Your task to perform on an android device: move an email to a new category in the gmail app Image 0: 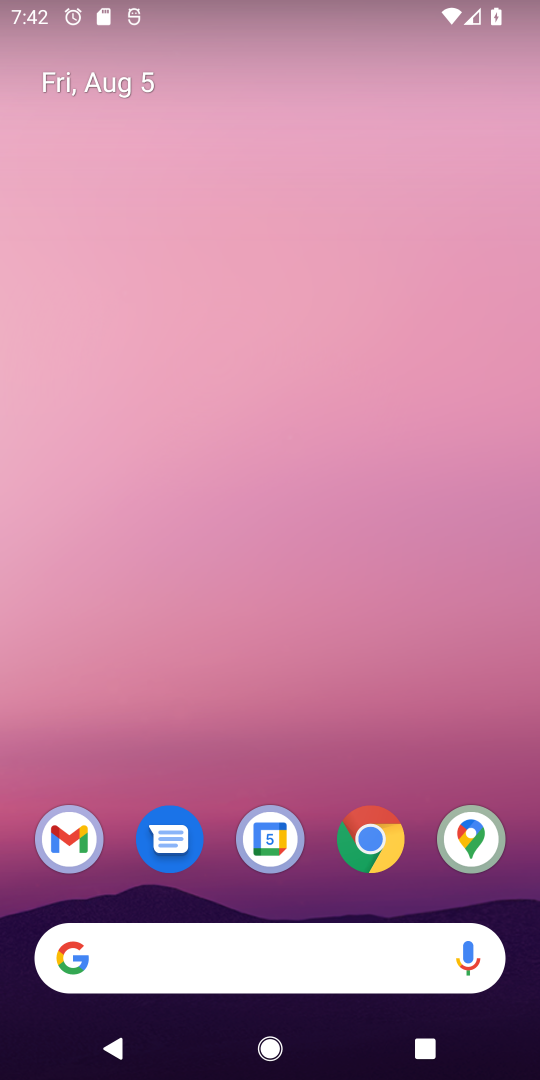
Step 0: click (97, 840)
Your task to perform on an android device: move an email to a new category in the gmail app Image 1: 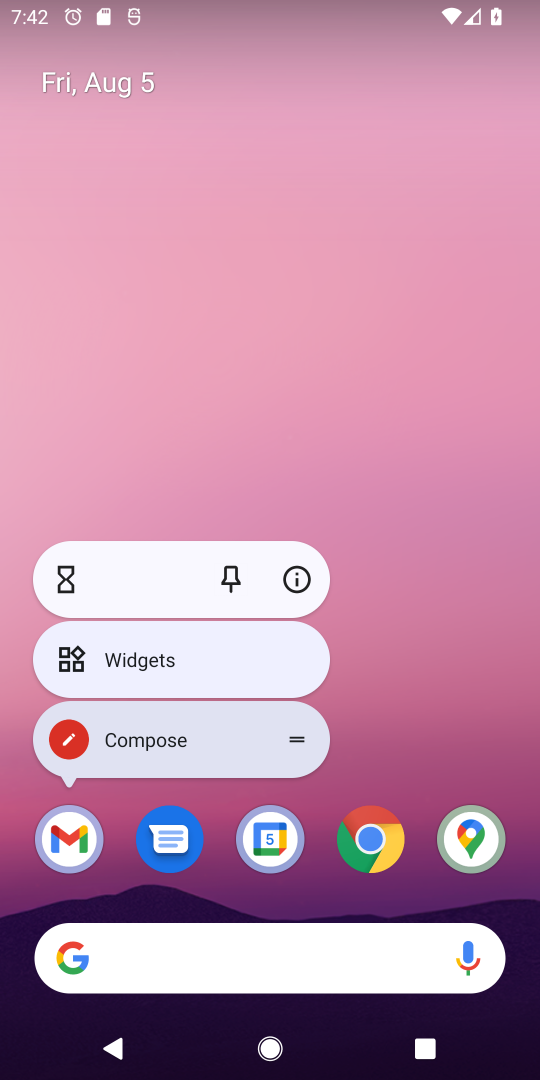
Step 1: click (97, 840)
Your task to perform on an android device: move an email to a new category in the gmail app Image 2: 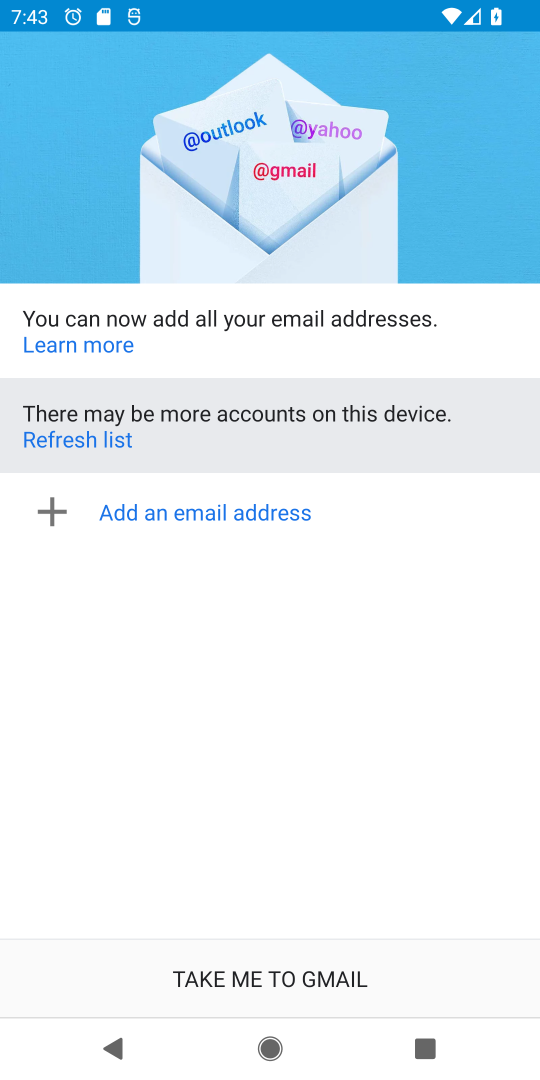
Step 2: click (274, 978)
Your task to perform on an android device: move an email to a new category in the gmail app Image 3: 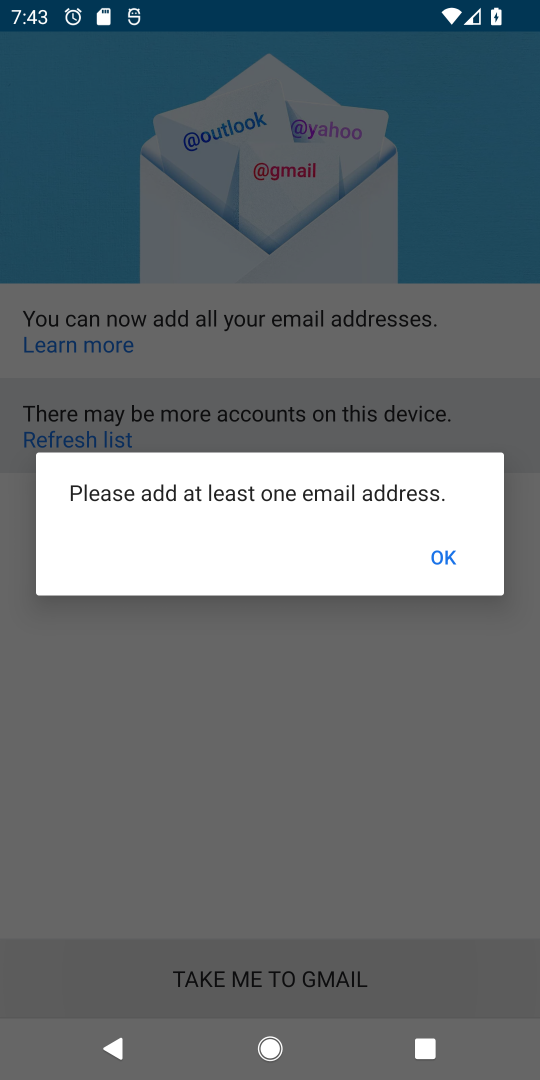
Step 3: task complete